Your task to perform on an android device: turn off wifi Image 0: 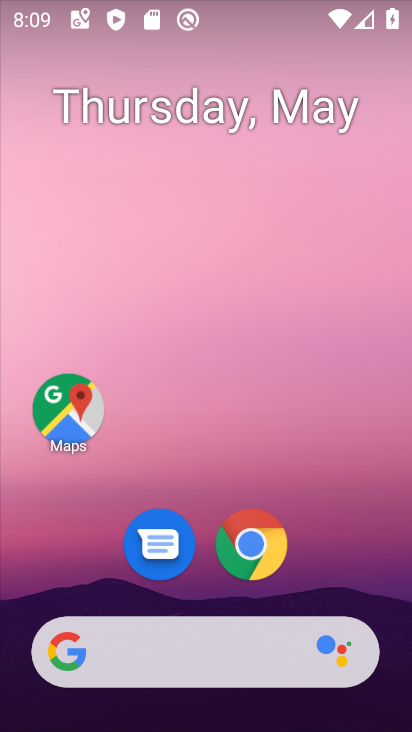
Step 0: press home button
Your task to perform on an android device: turn off wifi Image 1: 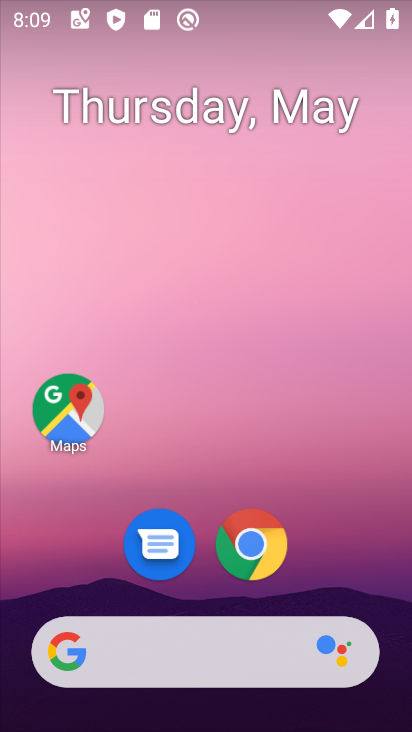
Step 1: drag from (212, 3) to (111, 721)
Your task to perform on an android device: turn off wifi Image 2: 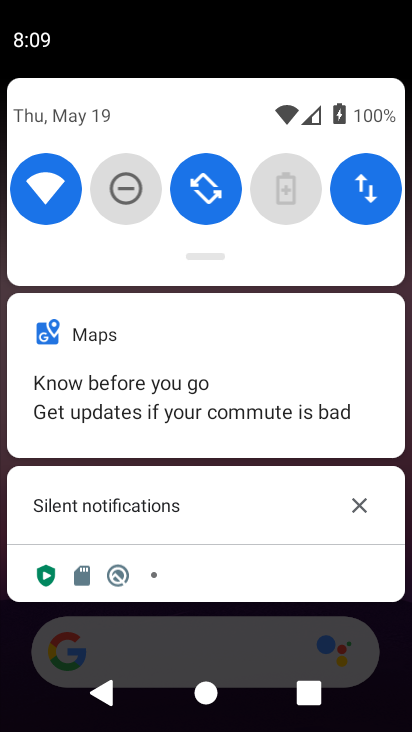
Step 2: click (58, 176)
Your task to perform on an android device: turn off wifi Image 3: 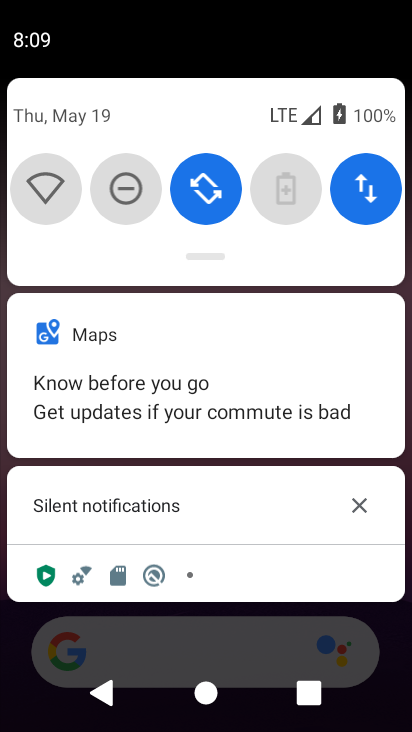
Step 3: task complete